Your task to perform on an android device: Turn off the flashlight Image 0: 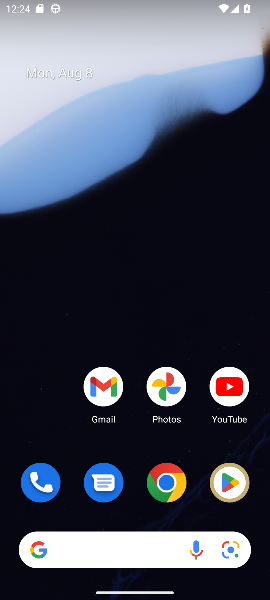
Step 0: click (131, 380)
Your task to perform on an android device: Turn off the flashlight Image 1: 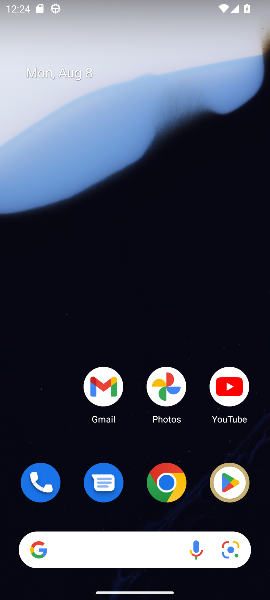
Step 1: task complete